Your task to perform on an android device: Is it going to rain tomorrow? Image 0: 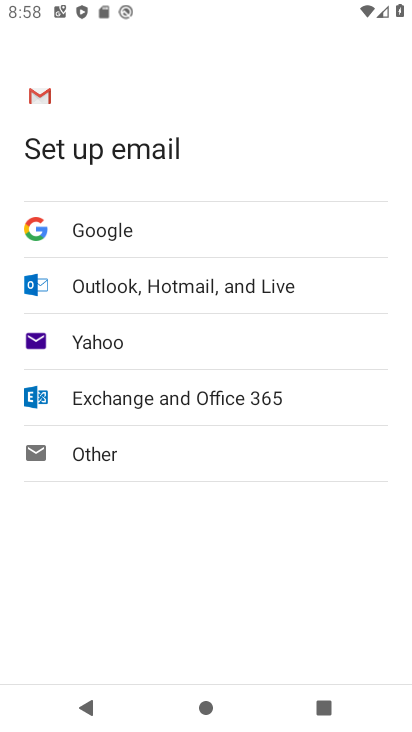
Step 0: press home button
Your task to perform on an android device: Is it going to rain tomorrow? Image 1: 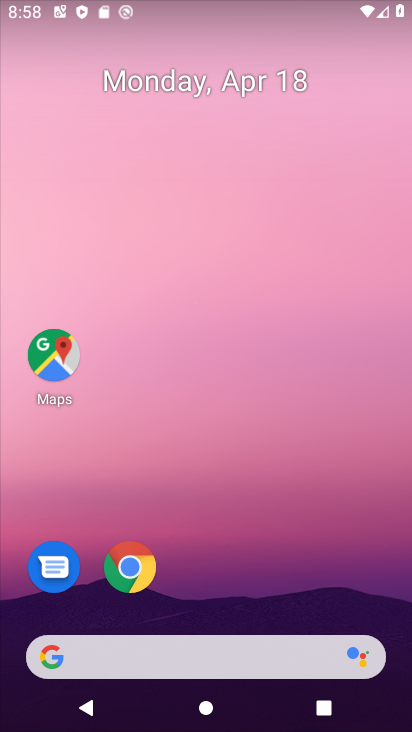
Step 1: click (127, 665)
Your task to perform on an android device: Is it going to rain tomorrow? Image 2: 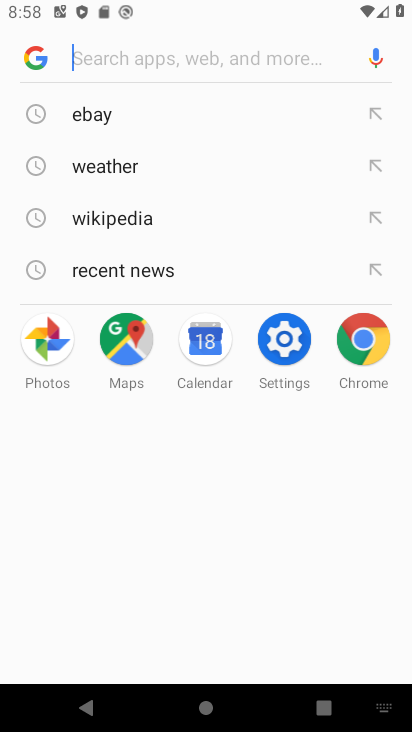
Step 2: type "Is it going to rain tomorrow?"
Your task to perform on an android device: Is it going to rain tomorrow? Image 3: 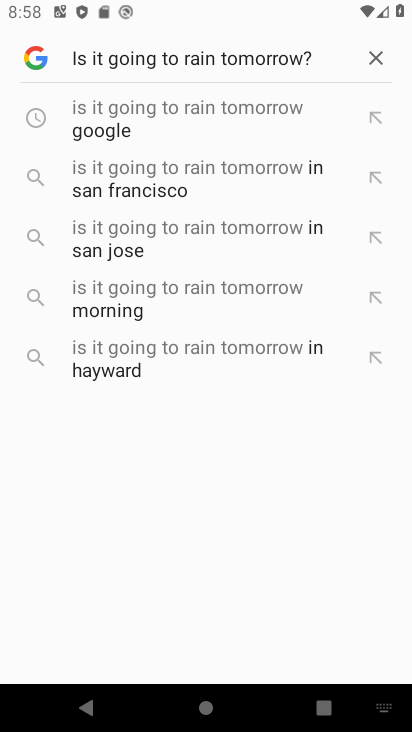
Step 3: click (140, 114)
Your task to perform on an android device: Is it going to rain tomorrow? Image 4: 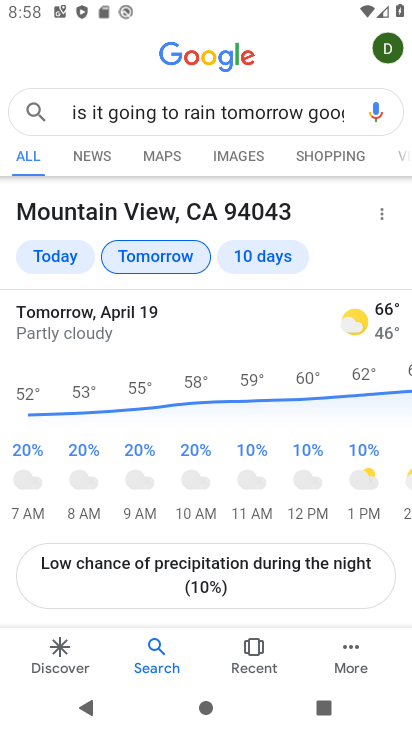
Step 4: task complete